Your task to perform on an android device: Open Reddit.com Image 0: 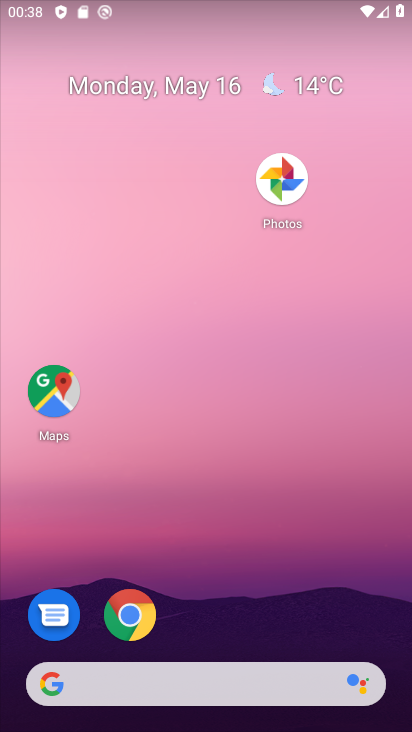
Step 0: drag from (297, 579) to (343, 132)
Your task to perform on an android device: Open Reddit.com Image 1: 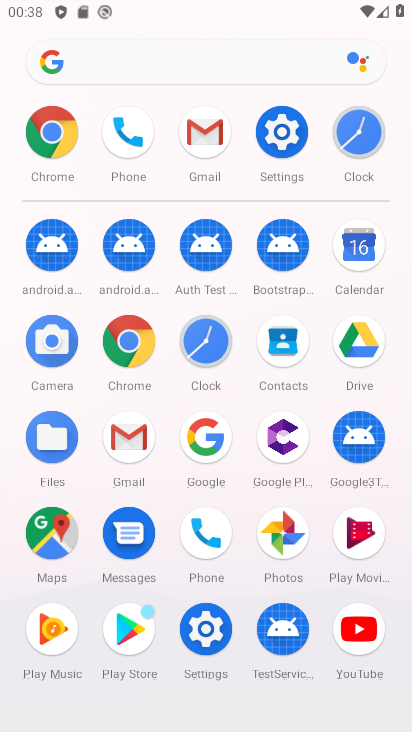
Step 1: click (53, 157)
Your task to perform on an android device: Open Reddit.com Image 2: 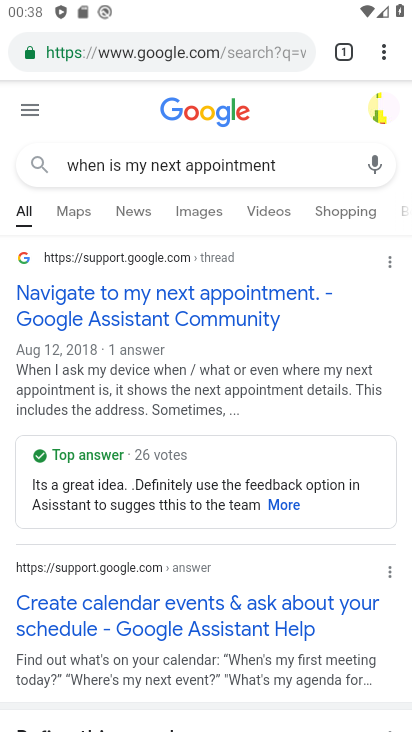
Step 2: click (286, 173)
Your task to perform on an android device: Open Reddit.com Image 3: 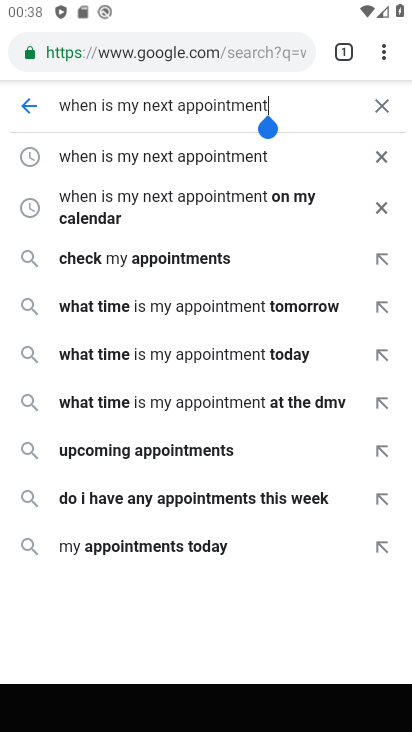
Step 3: click (280, 165)
Your task to perform on an android device: Open Reddit.com Image 4: 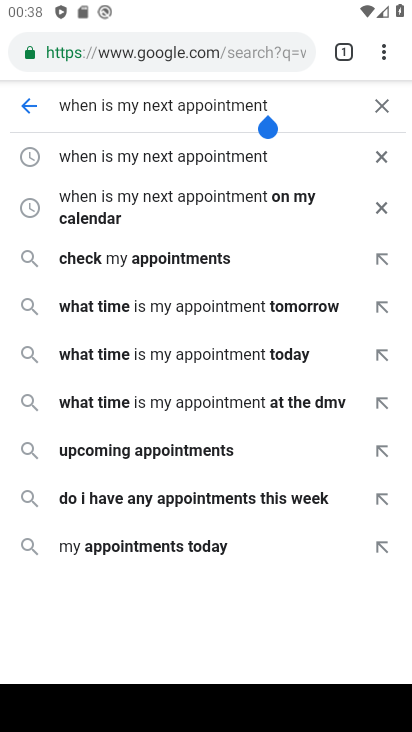
Step 4: click (282, 168)
Your task to perform on an android device: Open Reddit.com Image 5: 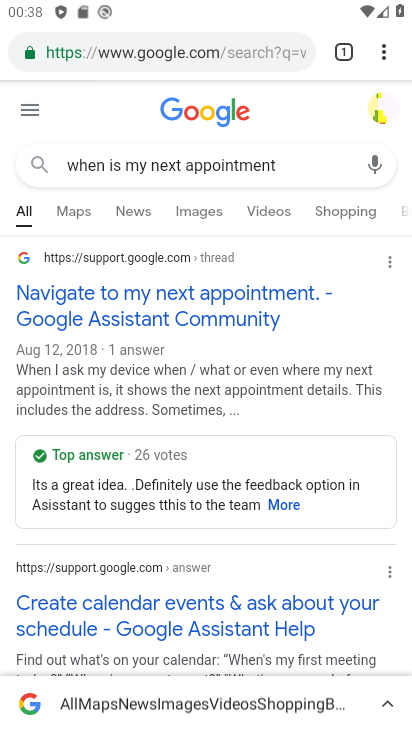
Step 5: click (314, 171)
Your task to perform on an android device: Open Reddit.com Image 6: 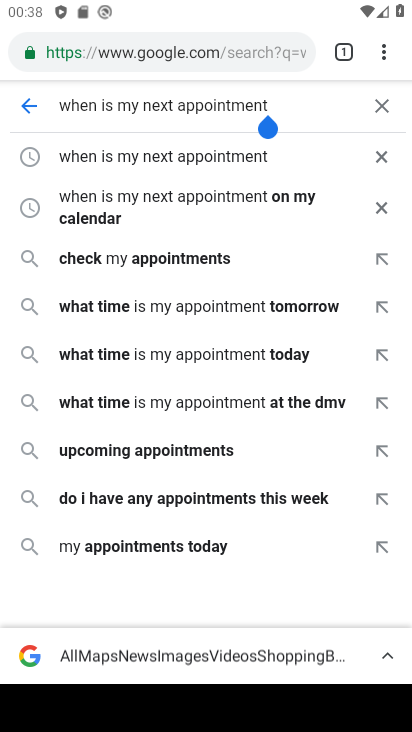
Step 6: click (189, 53)
Your task to perform on an android device: Open Reddit.com Image 7: 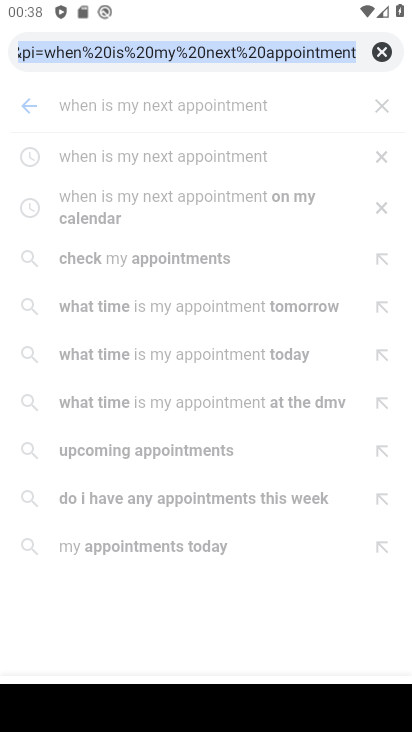
Step 7: click (387, 52)
Your task to perform on an android device: Open Reddit.com Image 8: 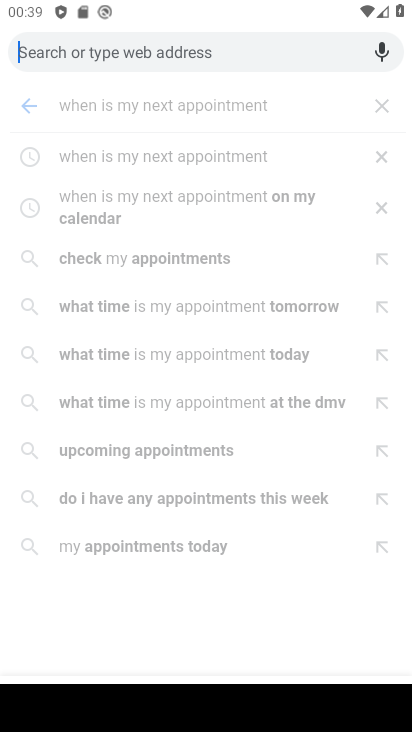
Step 8: type "reddit.com"
Your task to perform on an android device: Open Reddit.com Image 9: 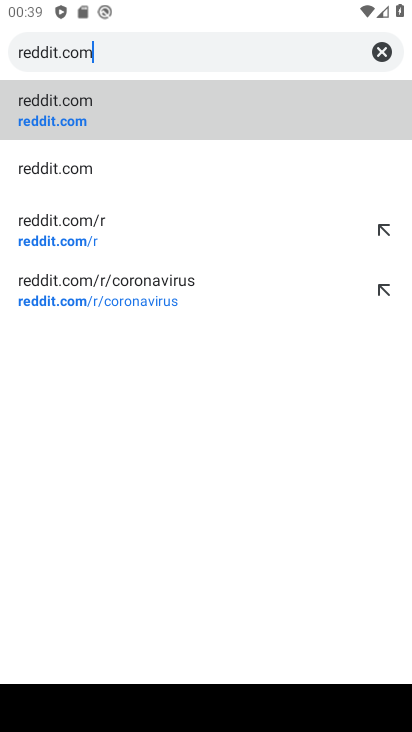
Step 9: click (237, 93)
Your task to perform on an android device: Open Reddit.com Image 10: 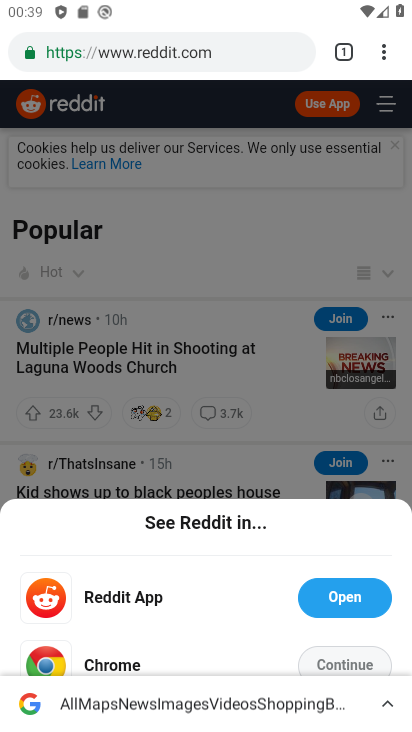
Step 10: task complete